Your task to perform on an android device: turn on bluetooth scan Image 0: 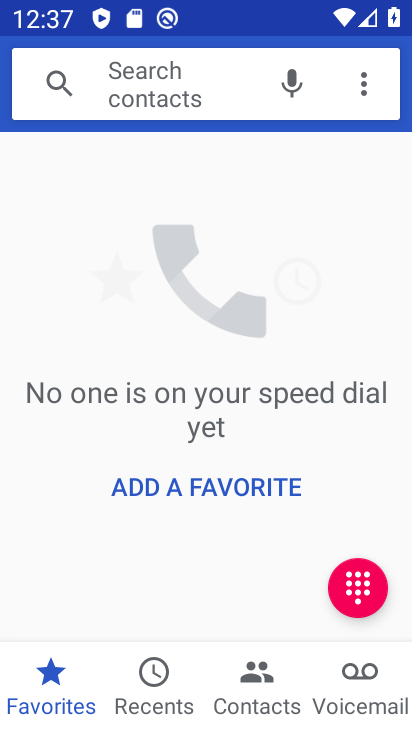
Step 0: press home button
Your task to perform on an android device: turn on bluetooth scan Image 1: 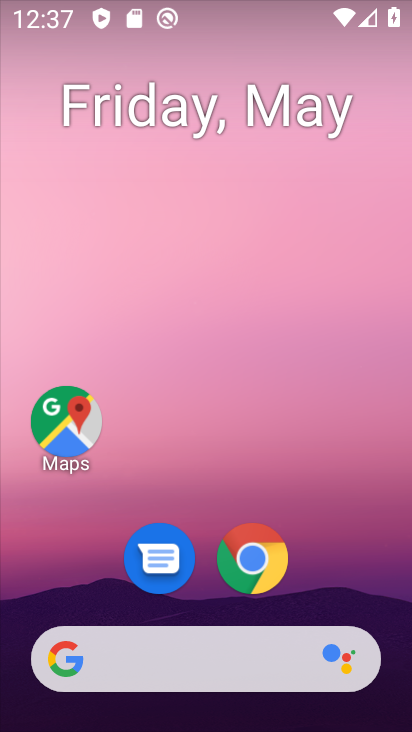
Step 1: drag from (373, 613) to (297, 147)
Your task to perform on an android device: turn on bluetooth scan Image 2: 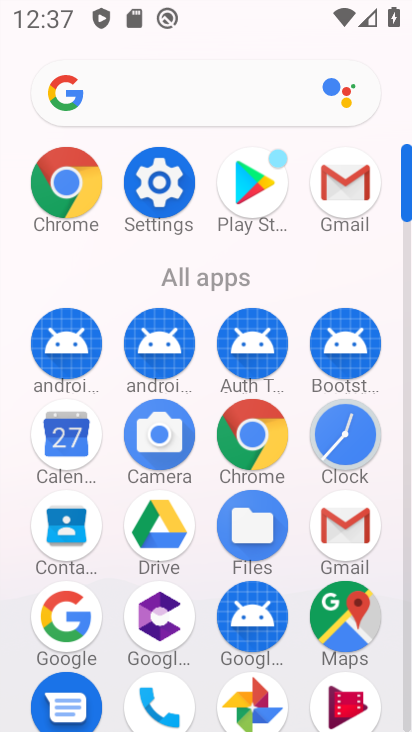
Step 2: click (159, 191)
Your task to perform on an android device: turn on bluetooth scan Image 3: 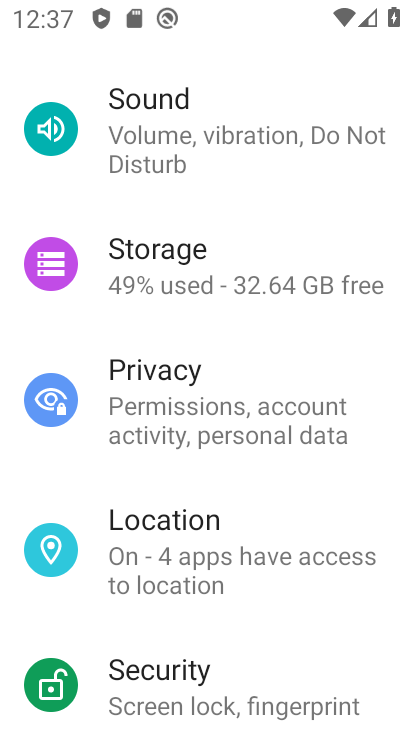
Step 3: click (211, 551)
Your task to perform on an android device: turn on bluetooth scan Image 4: 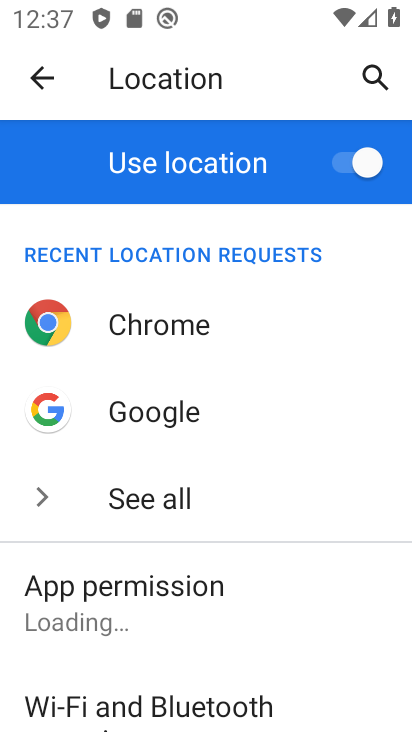
Step 4: drag from (248, 662) to (223, 360)
Your task to perform on an android device: turn on bluetooth scan Image 5: 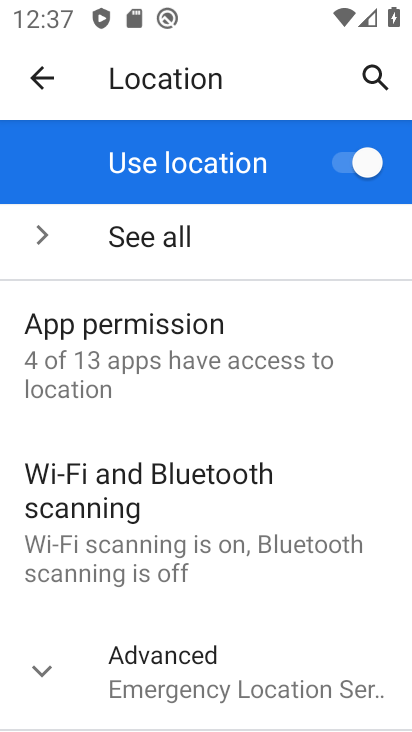
Step 5: click (231, 468)
Your task to perform on an android device: turn on bluetooth scan Image 6: 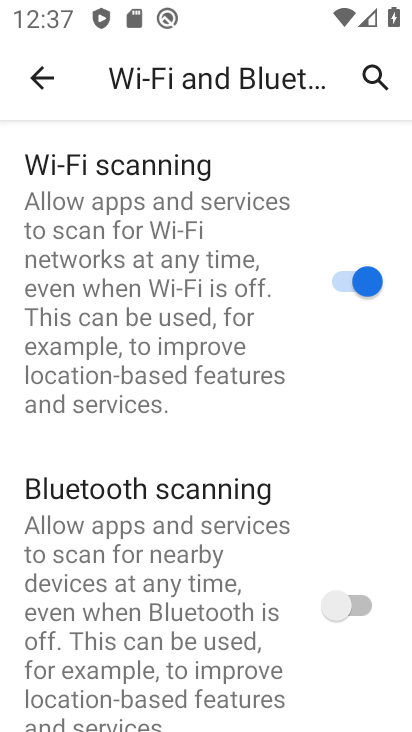
Step 6: click (352, 605)
Your task to perform on an android device: turn on bluetooth scan Image 7: 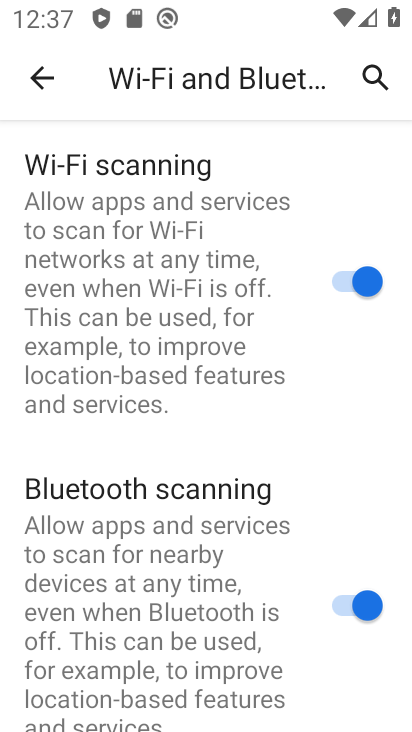
Step 7: task complete